Your task to perform on an android device: Go to Yahoo.com Image 0: 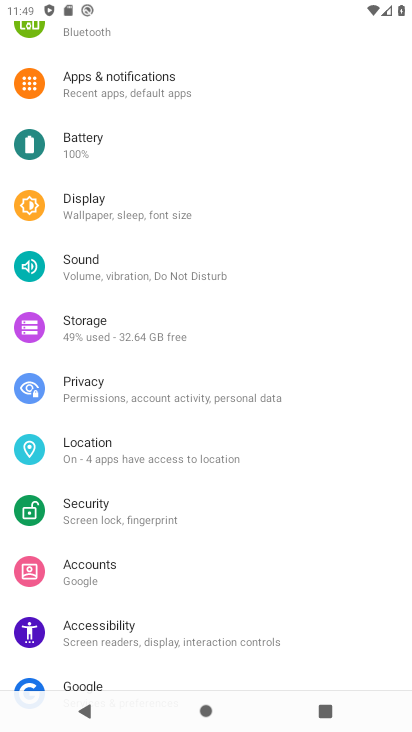
Step 0: press home button
Your task to perform on an android device: Go to Yahoo.com Image 1: 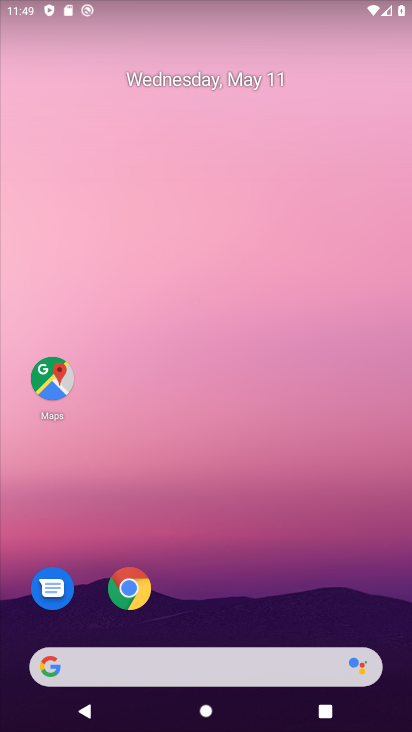
Step 1: click (121, 588)
Your task to perform on an android device: Go to Yahoo.com Image 2: 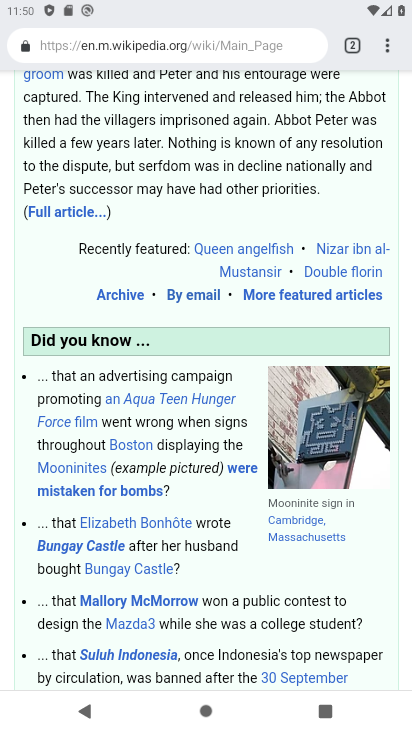
Step 2: click (354, 43)
Your task to perform on an android device: Go to Yahoo.com Image 3: 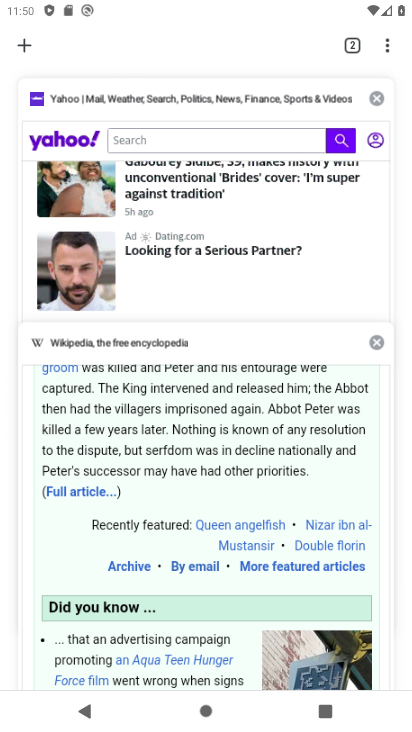
Step 3: click (380, 99)
Your task to perform on an android device: Go to Yahoo.com Image 4: 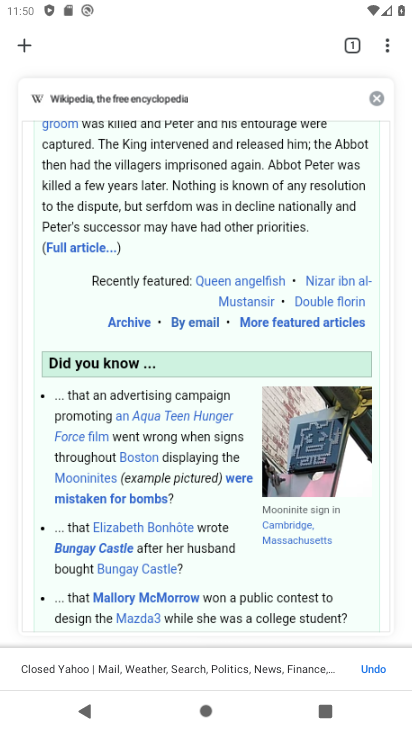
Step 4: click (379, 98)
Your task to perform on an android device: Go to Yahoo.com Image 5: 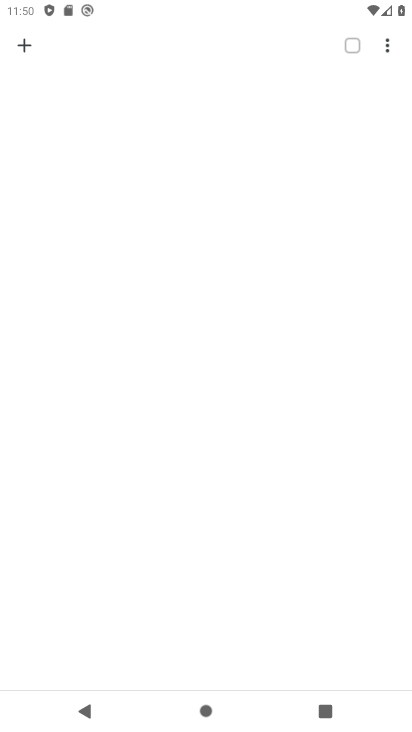
Step 5: press home button
Your task to perform on an android device: Go to Yahoo.com Image 6: 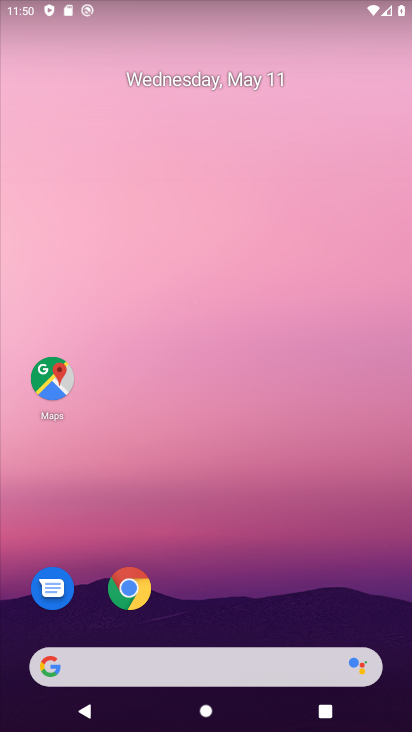
Step 6: click (127, 594)
Your task to perform on an android device: Go to Yahoo.com Image 7: 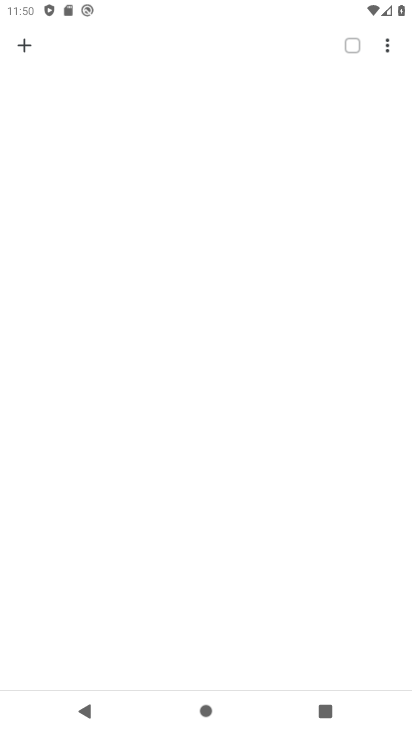
Step 7: click (19, 49)
Your task to perform on an android device: Go to Yahoo.com Image 8: 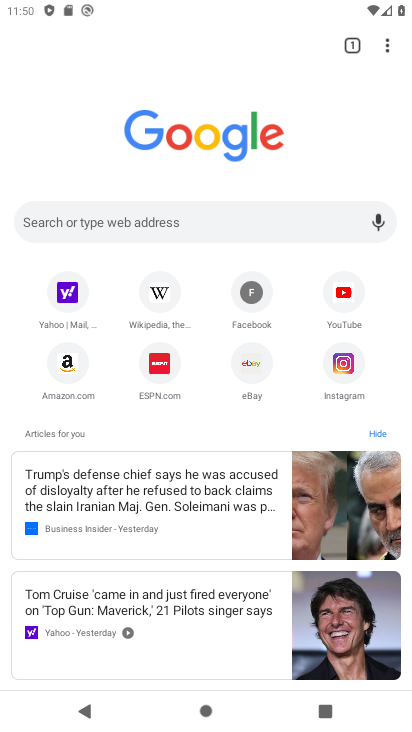
Step 8: click (72, 293)
Your task to perform on an android device: Go to Yahoo.com Image 9: 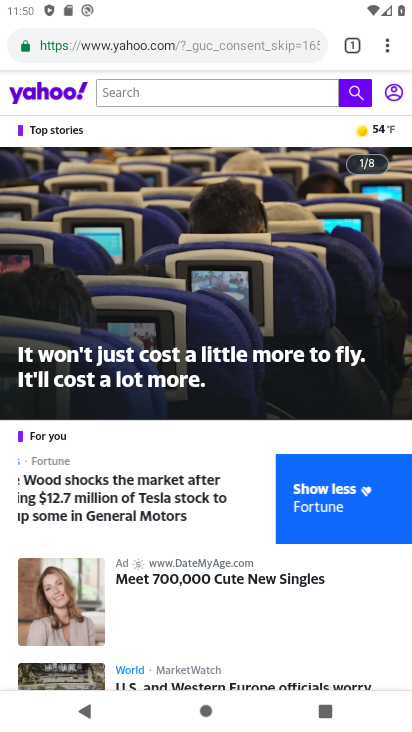
Step 9: task complete